Your task to perform on an android device: Open the phone app and click the voicemail tab. Image 0: 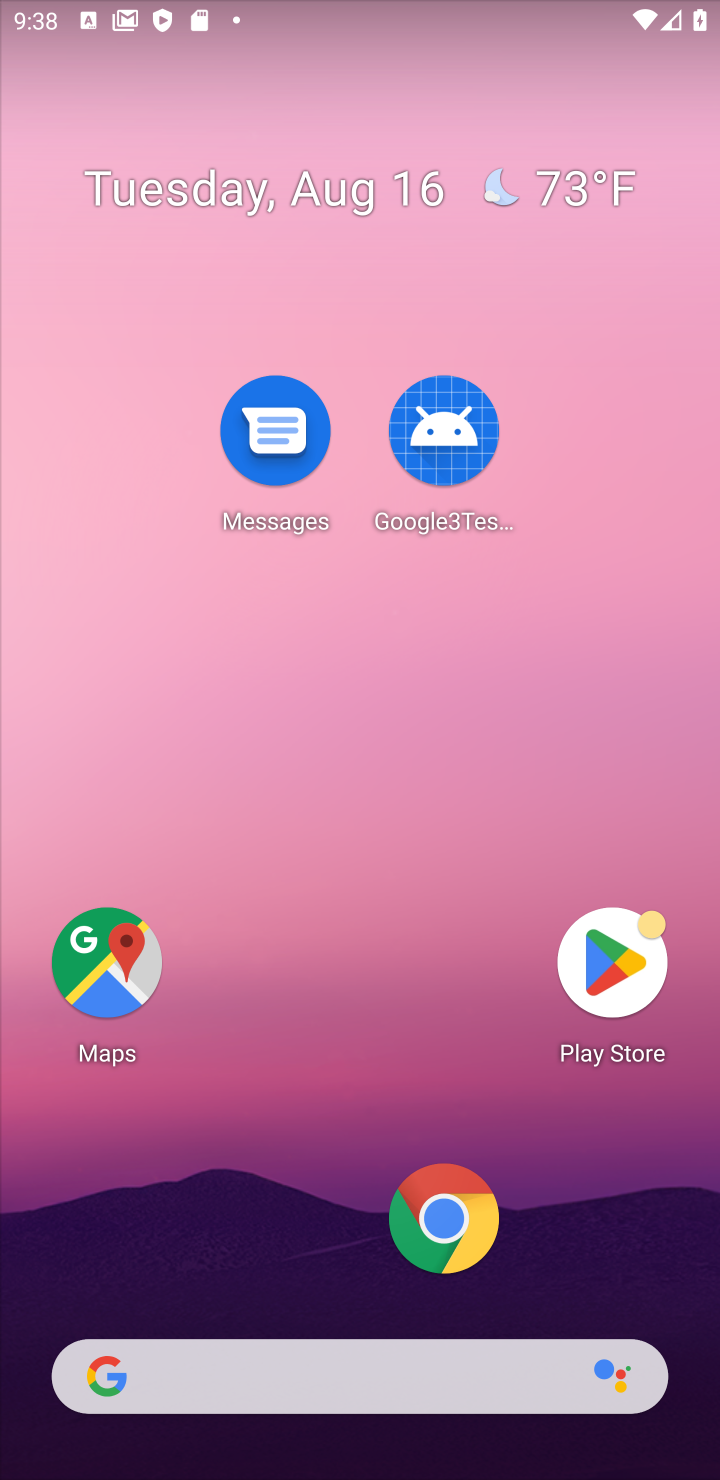
Step 0: drag from (276, 1323) to (446, 251)
Your task to perform on an android device: Open the phone app and click the voicemail tab. Image 1: 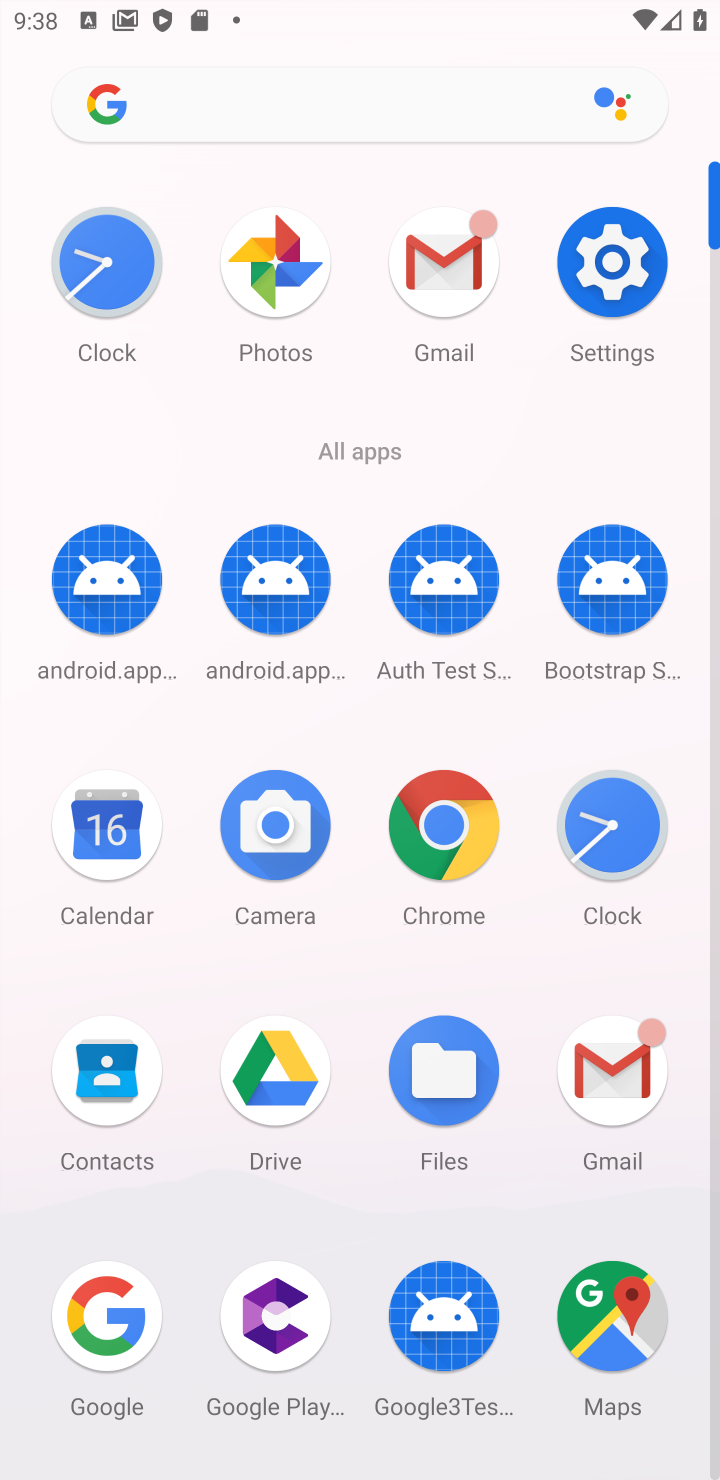
Step 1: drag from (347, 1362) to (417, 537)
Your task to perform on an android device: Open the phone app and click the voicemail tab. Image 2: 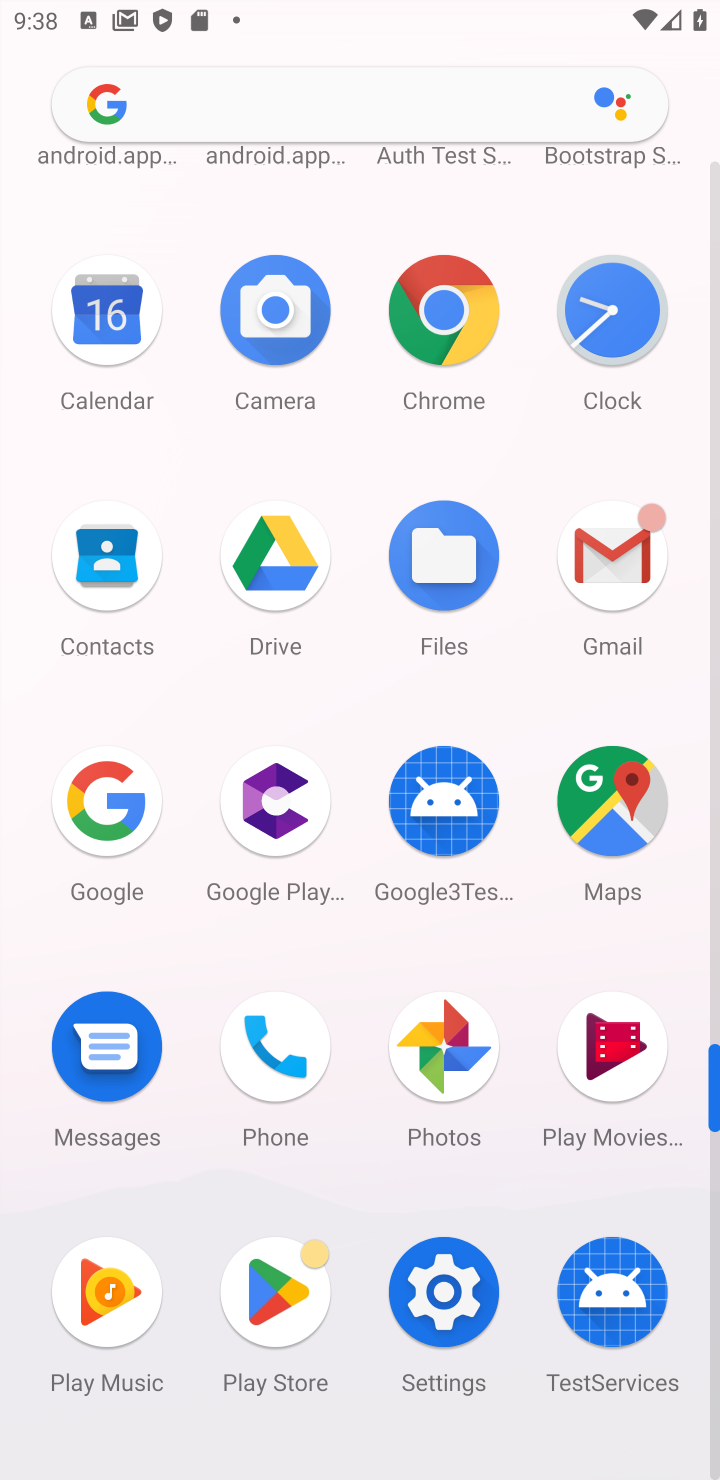
Step 2: click (277, 1165)
Your task to perform on an android device: Open the phone app and click the voicemail tab. Image 3: 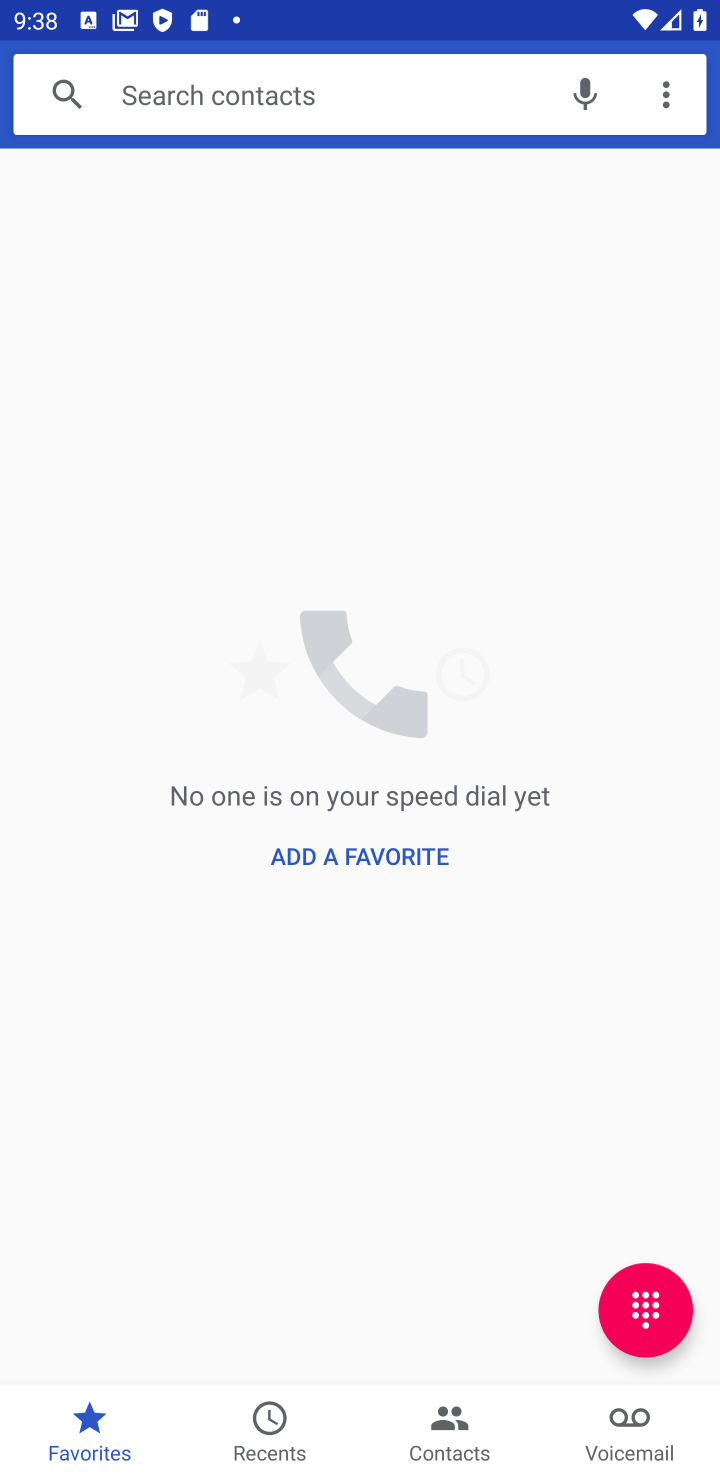
Step 3: click (656, 1426)
Your task to perform on an android device: Open the phone app and click the voicemail tab. Image 4: 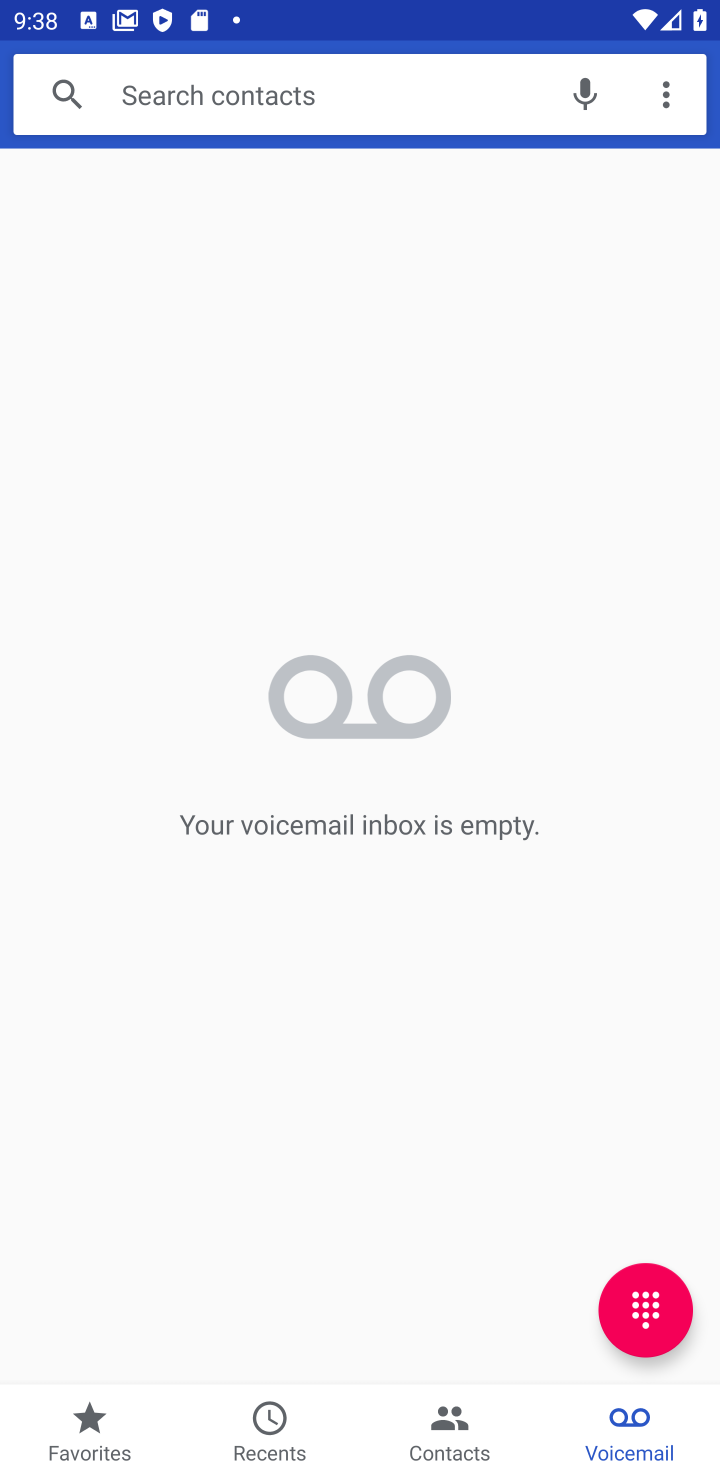
Step 4: task complete